Your task to perform on an android device: install app "AliExpress" Image 0: 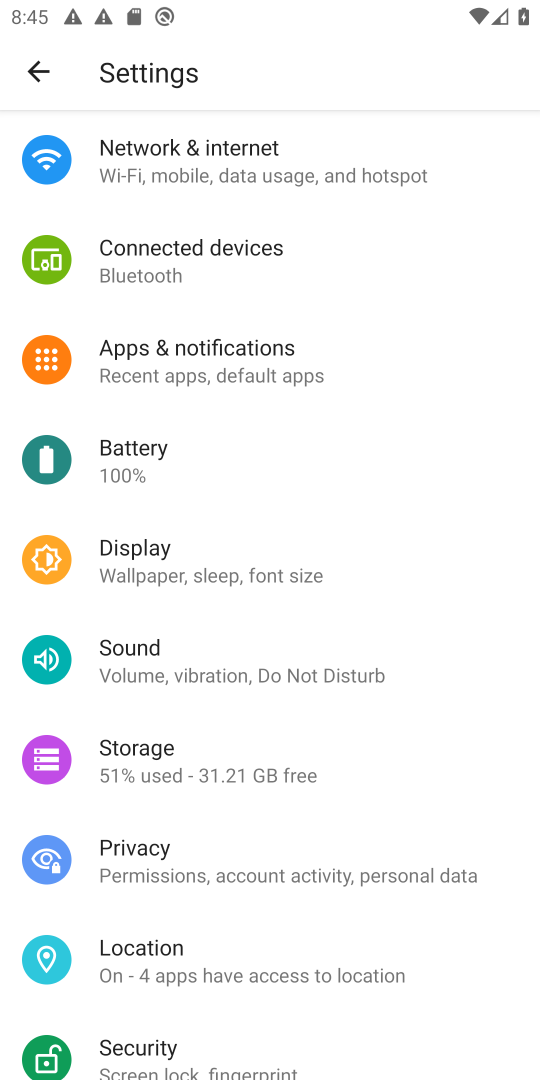
Step 0: press home button
Your task to perform on an android device: install app "AliExpress" Image 1: 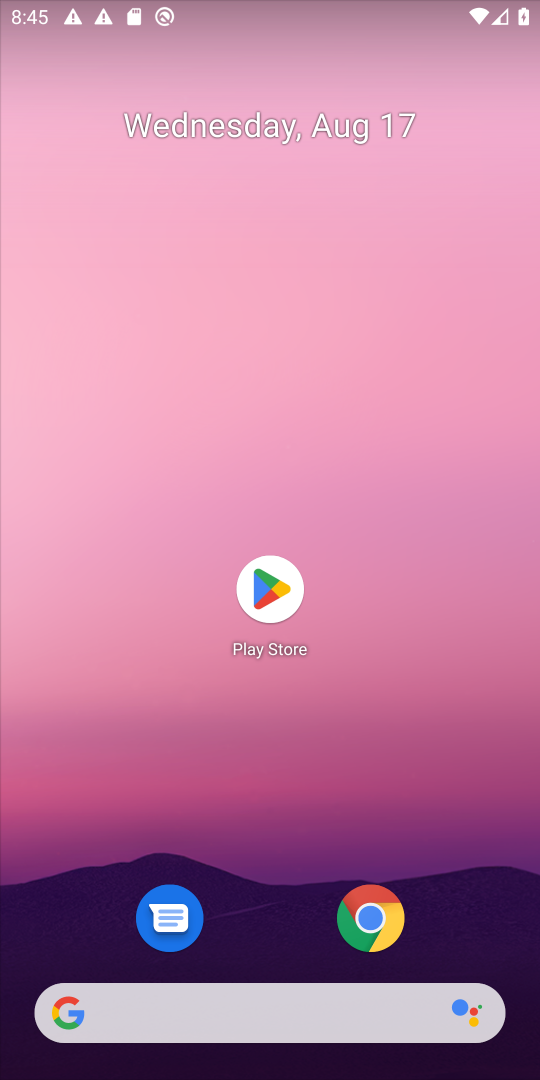
Step 1: click (264, 588)
Your task to perform on an android device: install app "AliExpress" Image 2: 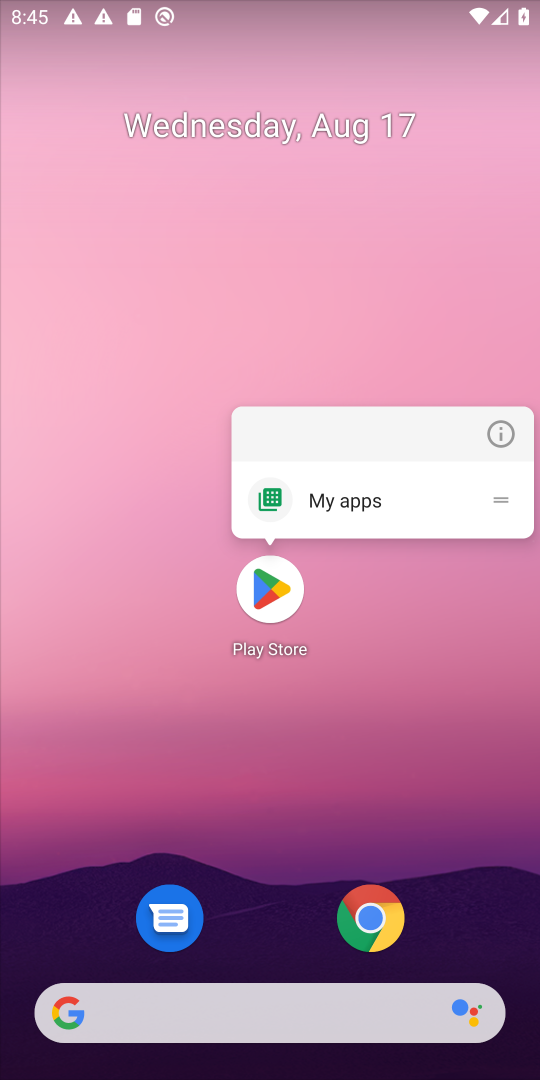
Step 2: click (274, 581)
Your task to perform on an android device: install app "AliExpress" Image 3: 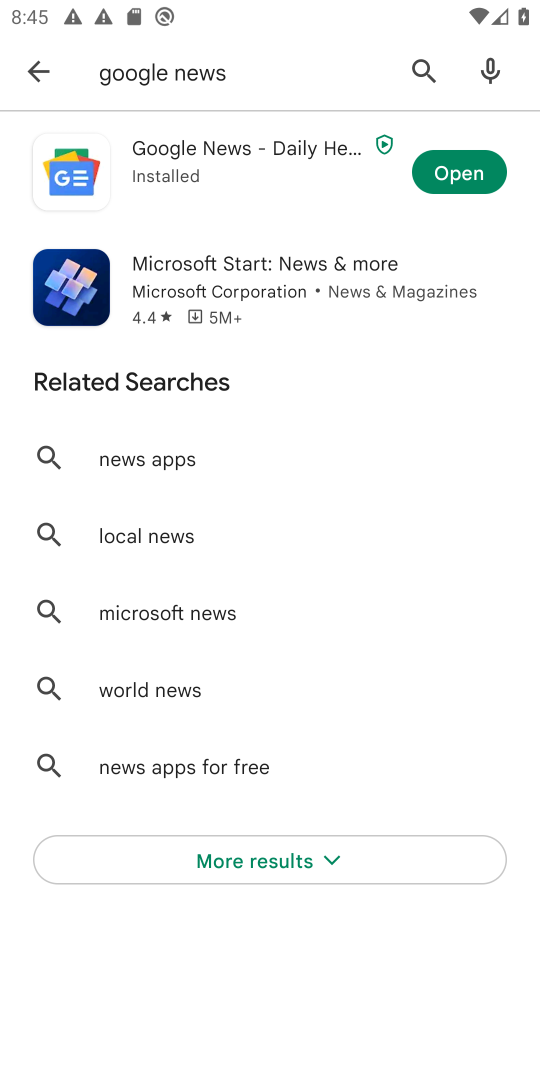
Step 3: click (419, 64)
Your task to perform on an android device: install app "AliExpress" Image 4: 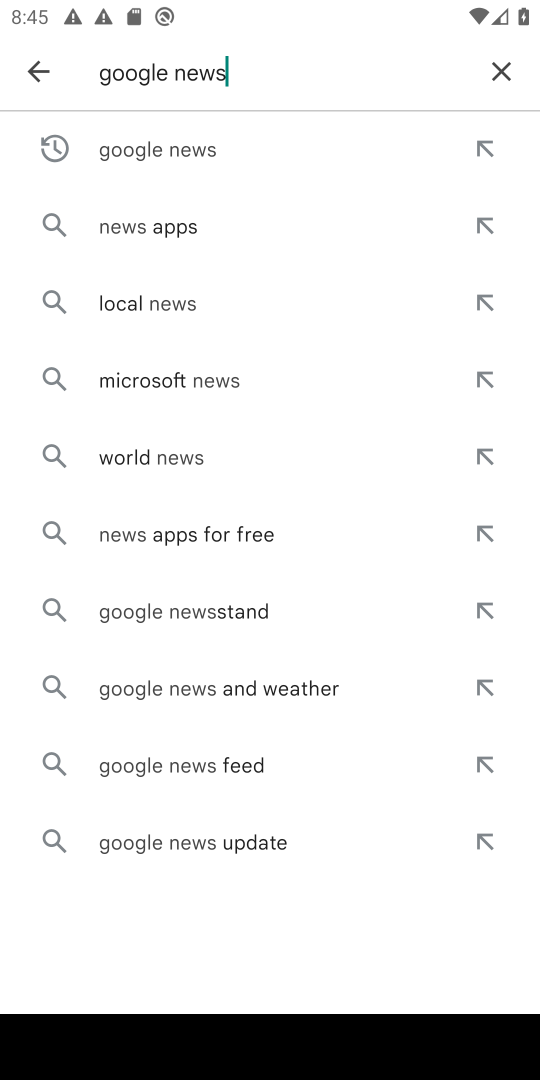
Step 4: click (501, 61)
Your task to perform on an android device: install app "AliExpress" Image 5: 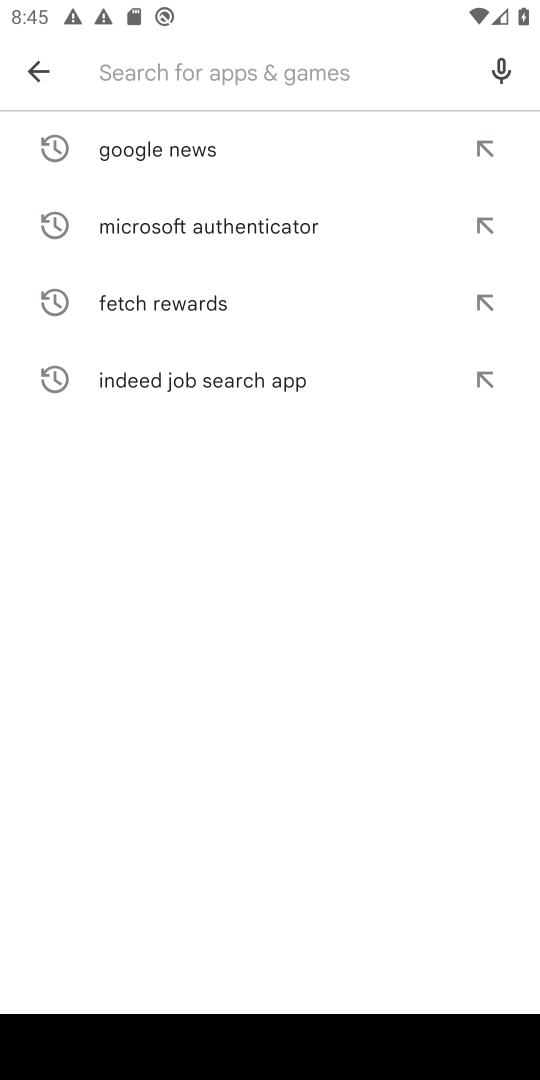
Step 5: type "AliExpress"
Your task to perform on an android device: install app "AliExpress" Image 6: 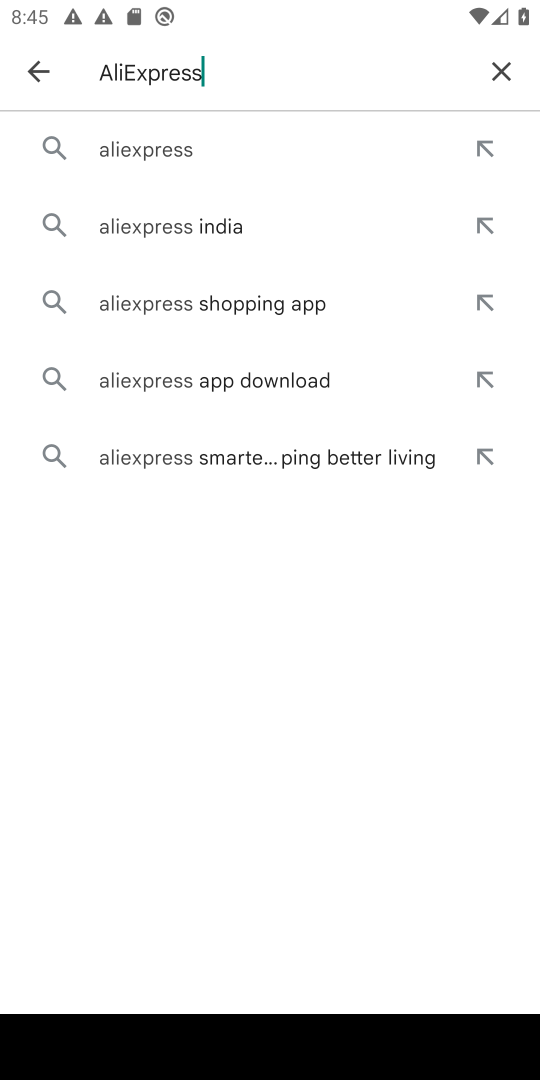
Step 6: click (149, 147)
Your task to perform on an android device: install app "AliExpress" Image 7: 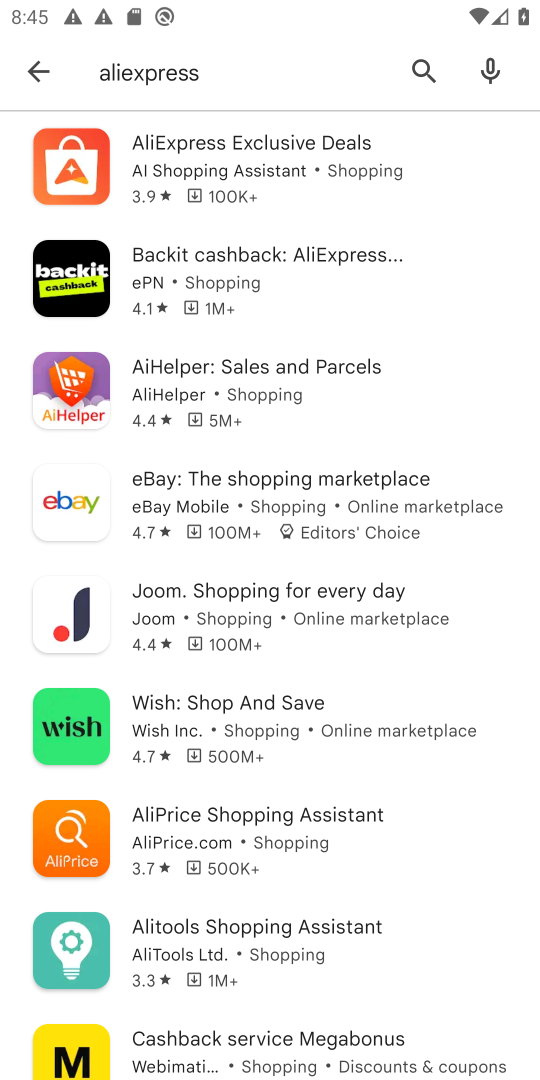
Step 7: click (161, 160)
Your task to perform on an android device: install app "AliExpress" Image 8: 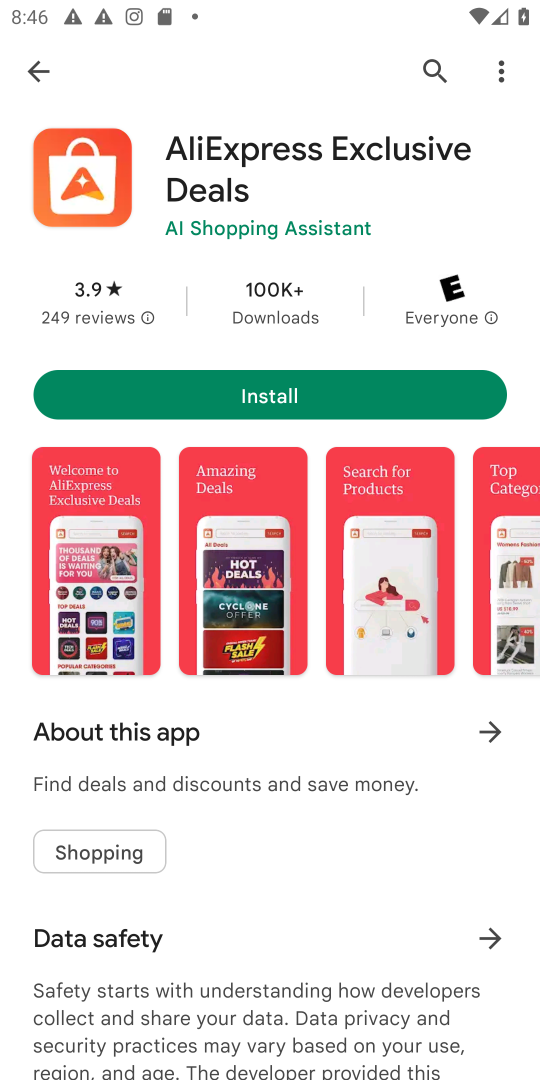
Step 8: click (292, 398)
Your task to perform on an android device: install app "AliExpress" Image 9: 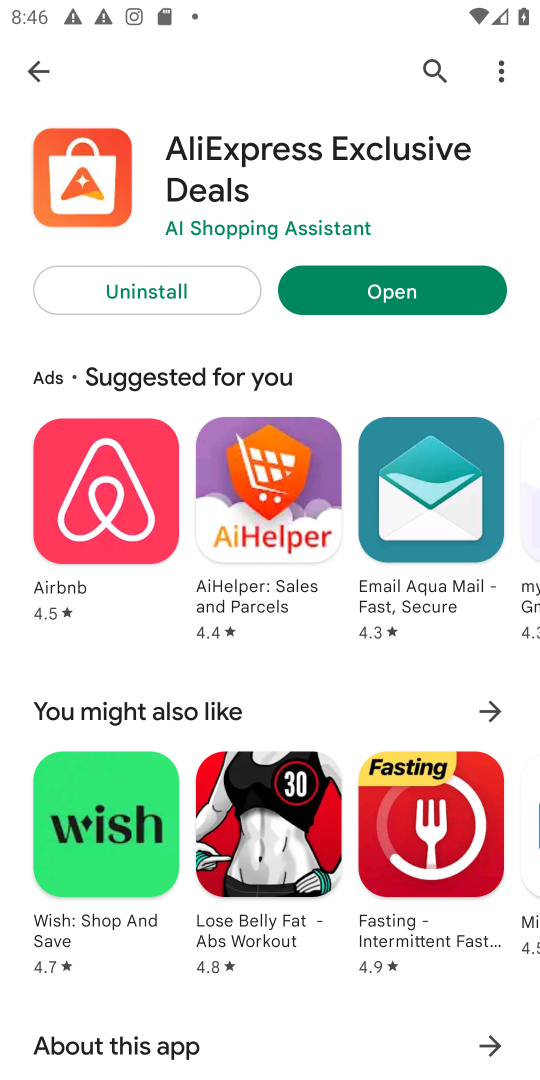
Step 9: task complete